Your task to perform on an android device: open the mobile data screen to see how much data has been used Image 0: 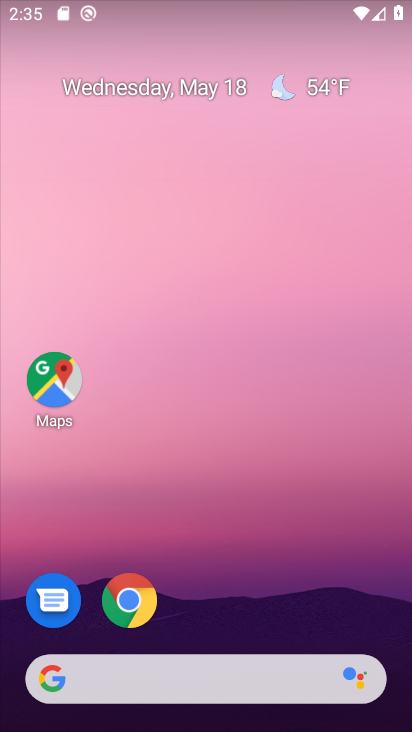
Step 0: drag from (238, 592) to (252, 65)
Your task to perform on an android device: open the mobile data screen to see how much data has been used Image 1: 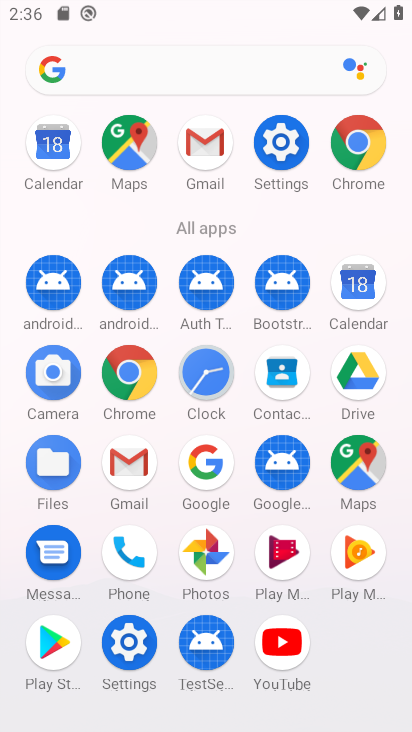
Step 1: click (291, 153)
Your task to perform on an android device: open the mobile data screen to see how much data has been used Image 2: 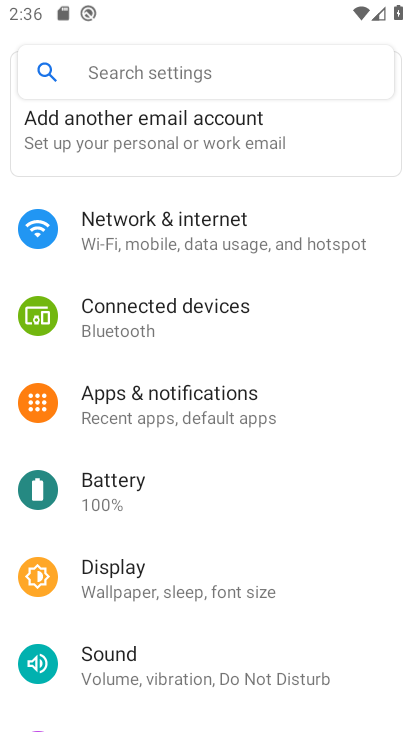
Step 2: click (214, 258)
Your task to perform on an android device: open the mobile data screen to see how much data has been used Image 3: 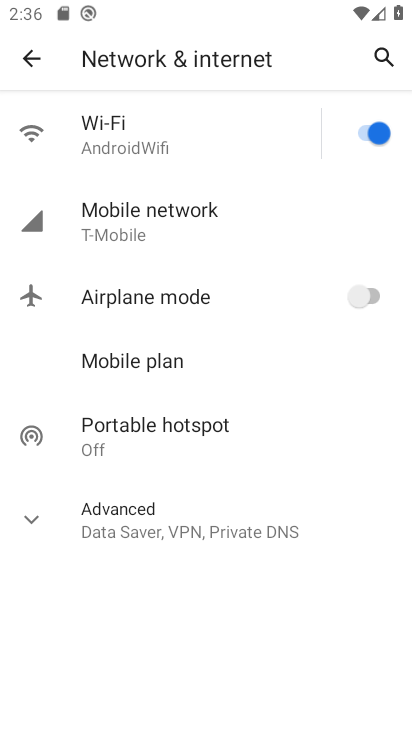
Step 3: click (130, 231)
Your task to perform on an android device: open the mobile data screen to see how much data has been used Image 4: 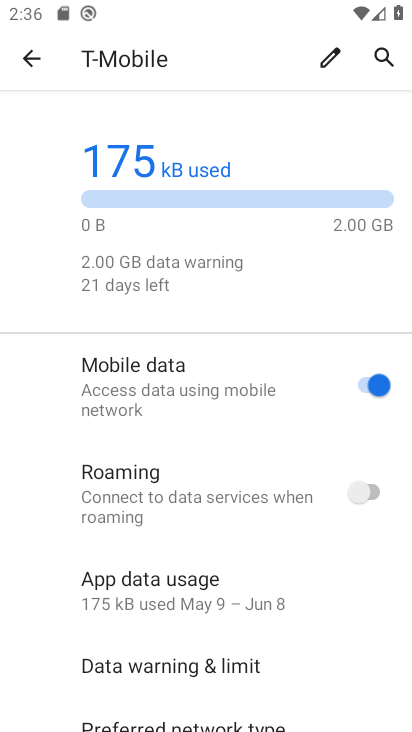
Step 4: drag from (227, 509) to (257, 341)
Your task to perform on an android device: open the mobile data screen to see how much data has been used Image 5: 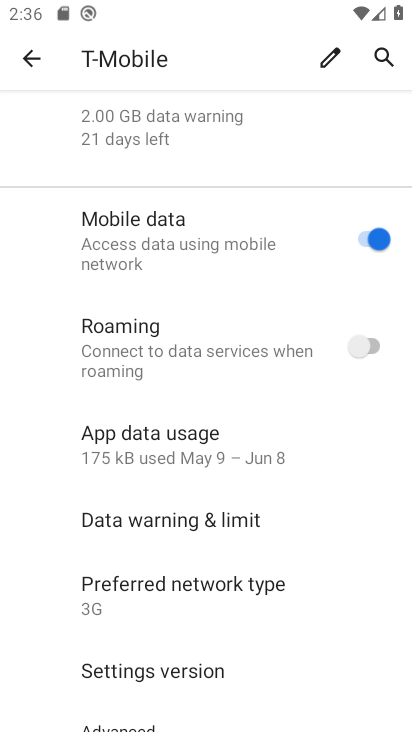
Step 5: click (194, 452)
Your task to perform on an android device: open the mobile data screen to see how much data has been used Image 6: 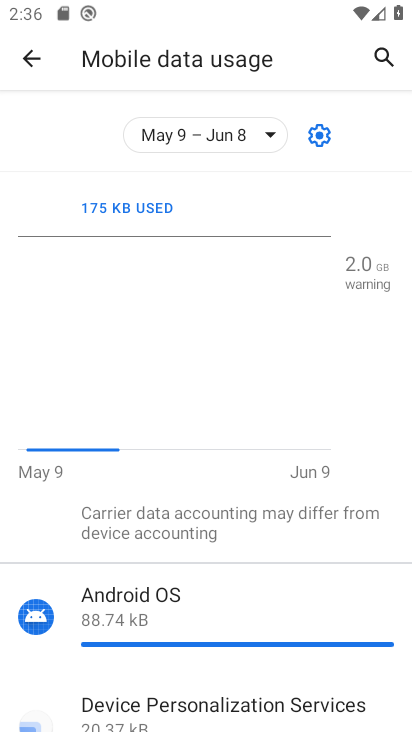
Step 6: task complete